Your task to perform on an android device: turn on priority inbox in the gmail app Image 0: 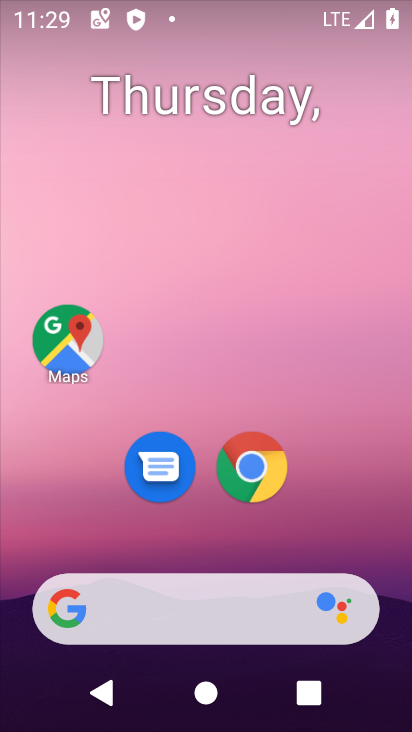
Step 0: drag from (179, 547) to (280, 24)
Your task to perform on an android device: turn on priority inbox in the gmail app Image 1: 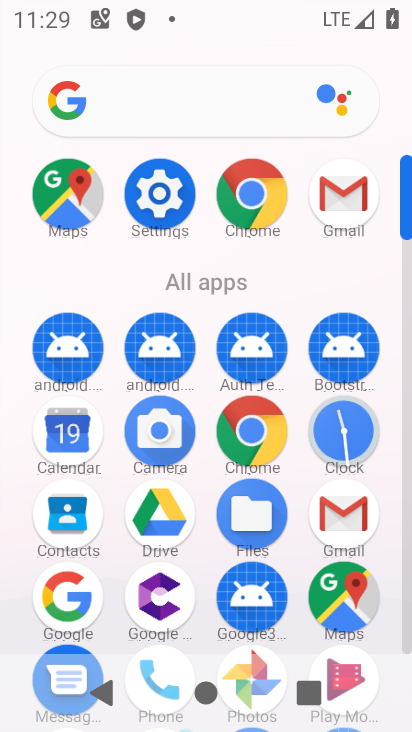
Step 1: click (334, 196)
Your task to perform on an android device: turn on priority inbox in the gmail app Image 2: 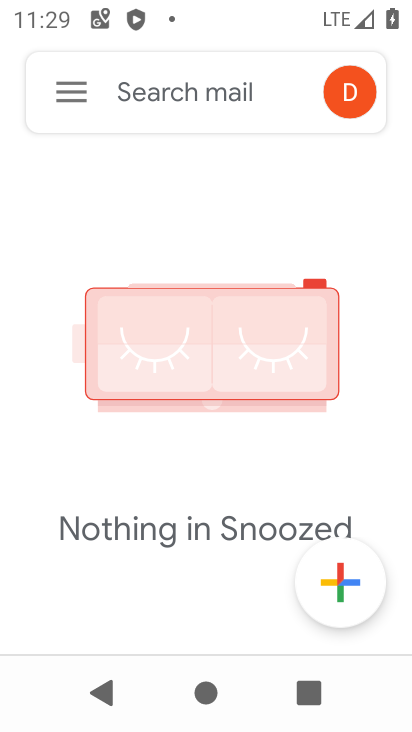
Step 2: click (59, 85)
Your task to perform on an android device: turn on priority inbox in the gmail app Image 3: 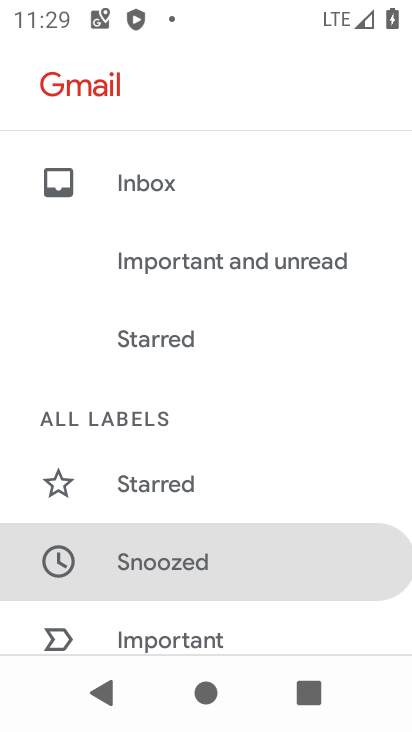
Step 3: drag from (160, 604) to (273, 42)
Your task to perform on an android device: turn on priority inbox in the gmail app Image 4: 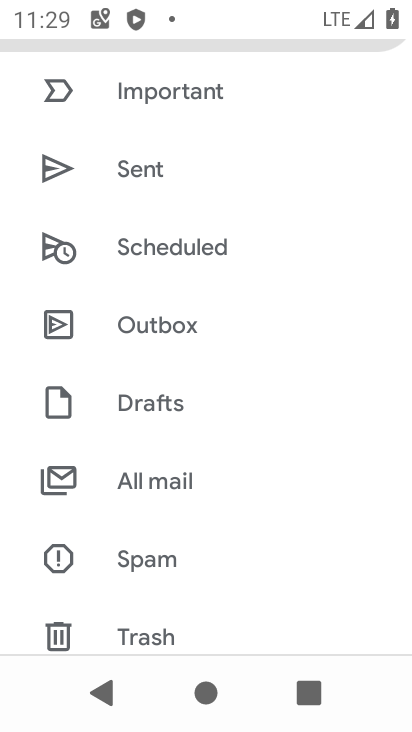
Step 4: drag from (175, 574) to (287, 26)
Your task to perform on an android device: turn on priority inbox in the gmail app Image 5: 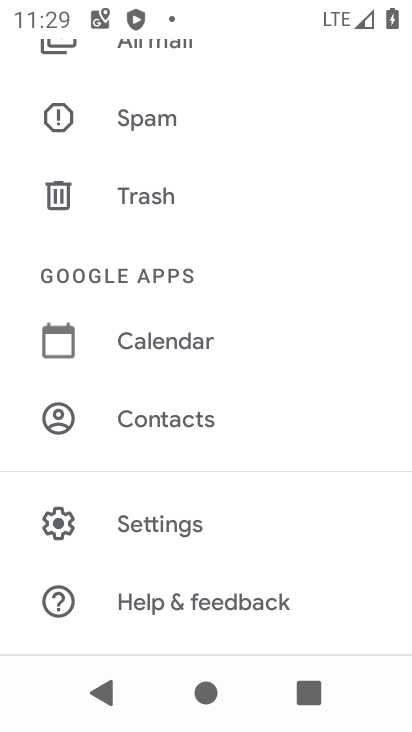
Step 5: click (140, 515)
Your task to perform on an android device: turn on priority inbox in the gmail app Image 6: 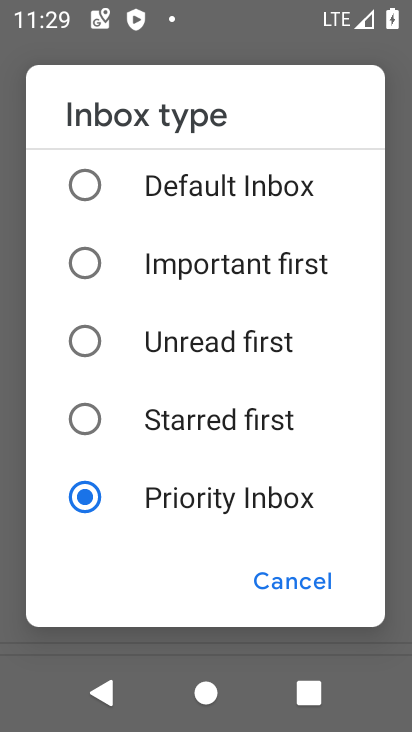
Step 6: click (89, 495)
Your task to perform on an android device: turn on priority inbox in the gmail app Image 7: 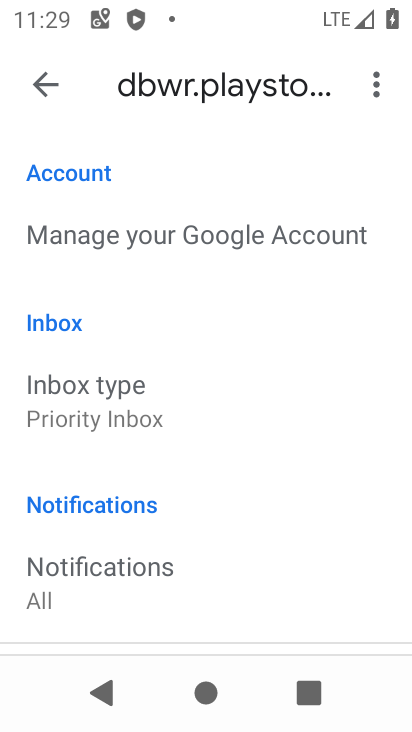
Step 7: task complete